Your task to perform on an android device: see creations saved in the google photos Image 0: 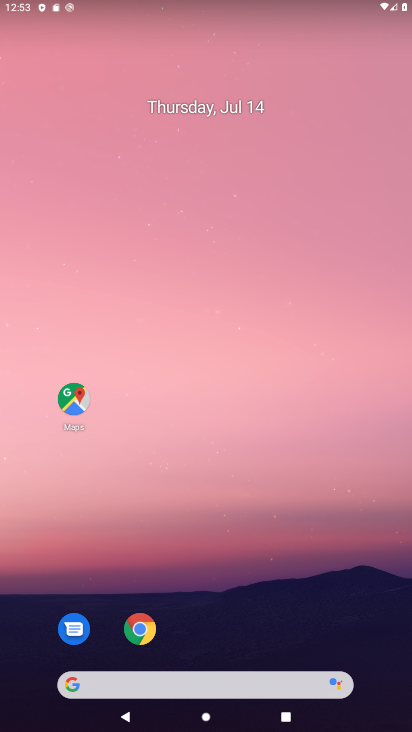
Step 0: drag from (220, 622) to (277, 279)
Your task to perform on an android device: see creations saved in the google photos Image 1: 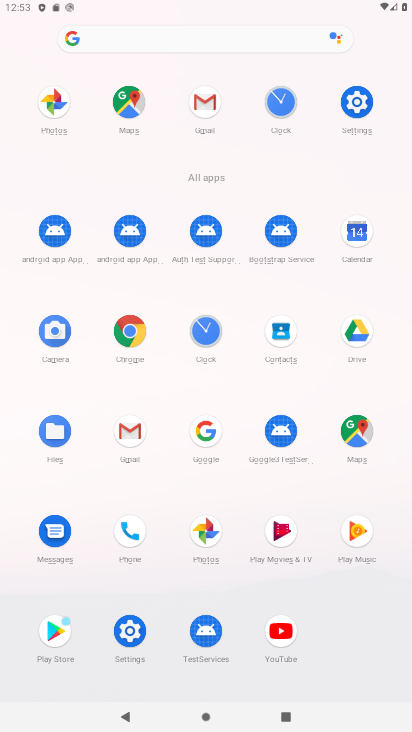
Step 1: click (215, 536)
Your task to perform on an android device: see creations saved in the google photos Image 2: 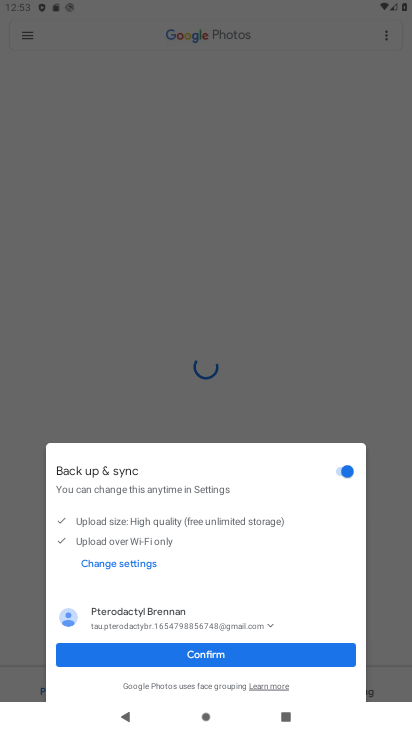
Step 2: click (202, 664)
Your task to perform on an android device: see creations saved in the google photos Image 3: 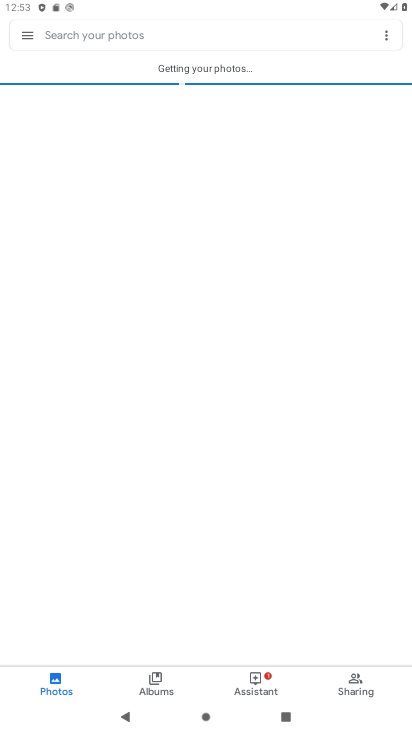
Step 3: click (235, 439)
Your task to perform on an android device: see creations saved in the google photos Image 4: 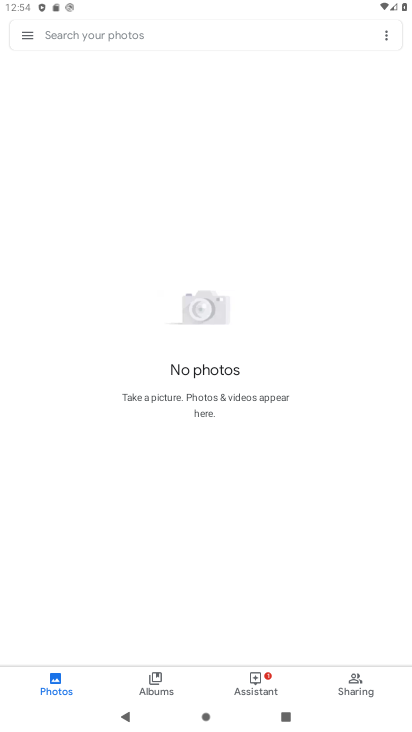
Step 4: click (186, 43)
Your task to perform on an android device: see creations saved in the google photos Image 5: 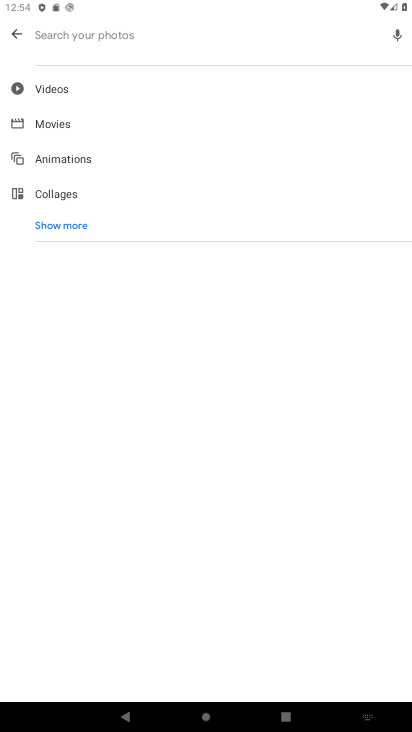
Step 5: click (77, 226)
Your task to perform on an android device: see creations saved in the google photos Image 6: 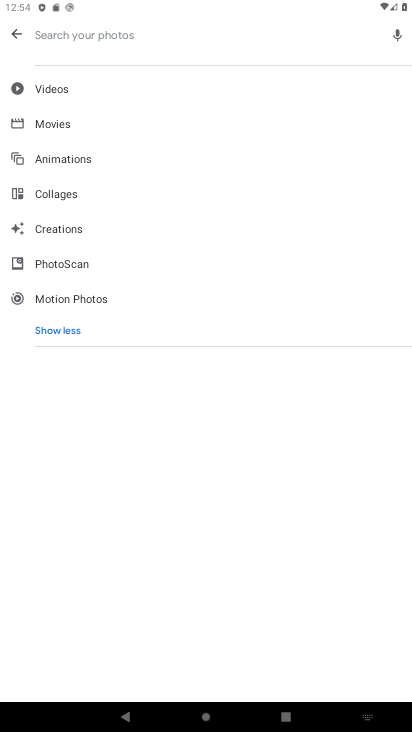
Step 6: click (83, 237)
Your task to perform on an android device: see creations saved in the google photos Image 7: 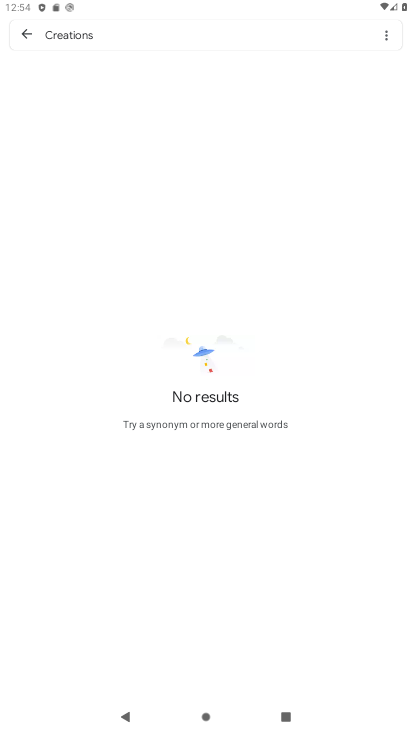
Step 7: task complete